Your task to perform on an android device: What's on my calendar tomorrow? Image 0: 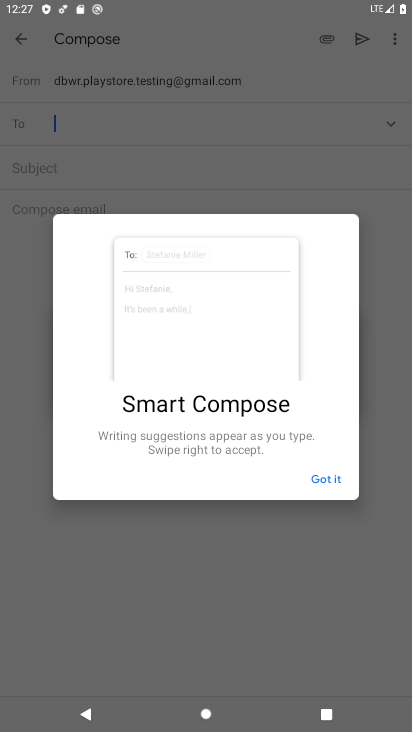
Step 0: press home button
Your task to perform on an android device: What's on my calendar tomorrow? Image 1: 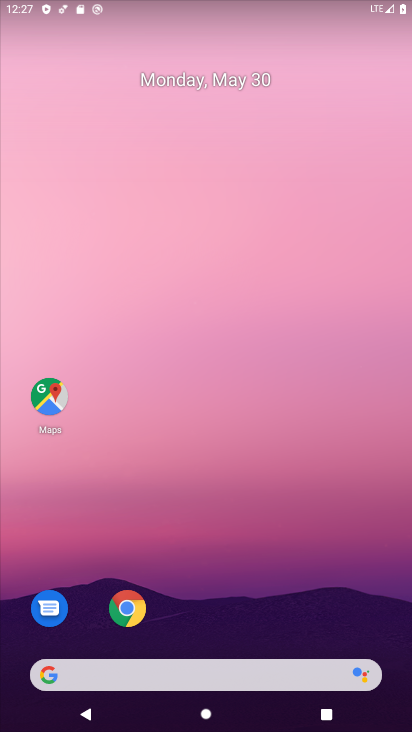
Step 1: drag from (234, 624) to (264, 13)
Your task to perform on an android device: What's on my calendar tomorrow? Image 2: 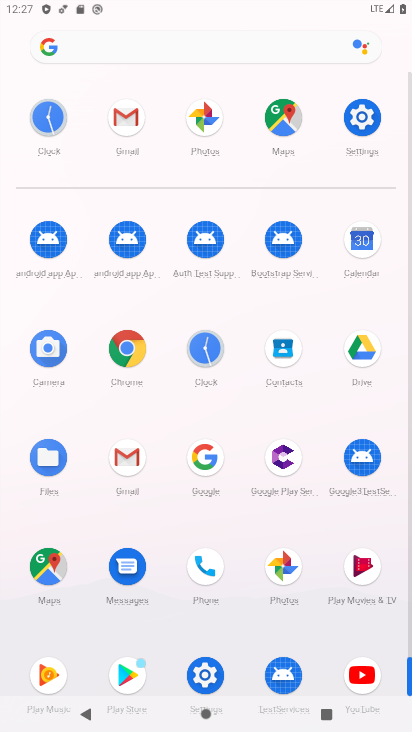
Step 2: click (376, 264)
Your task to perform on an android device: What's on my calendar tomorrow? Image 3: 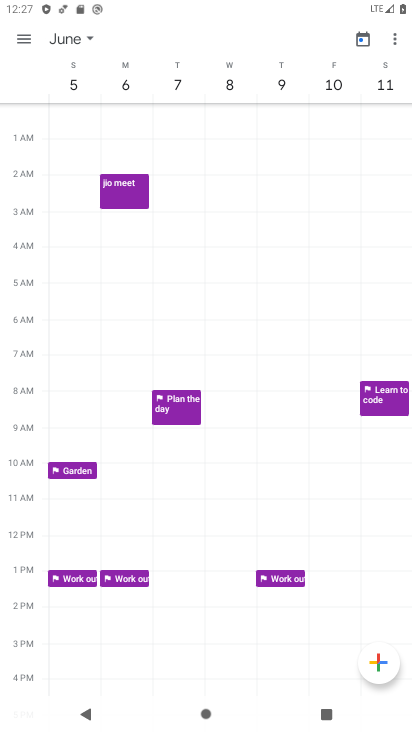
Step 3: drag from (210, 61) to (403, 125)
Your task to perform on an android device: What's on my calendar tomorrow? Image 4: 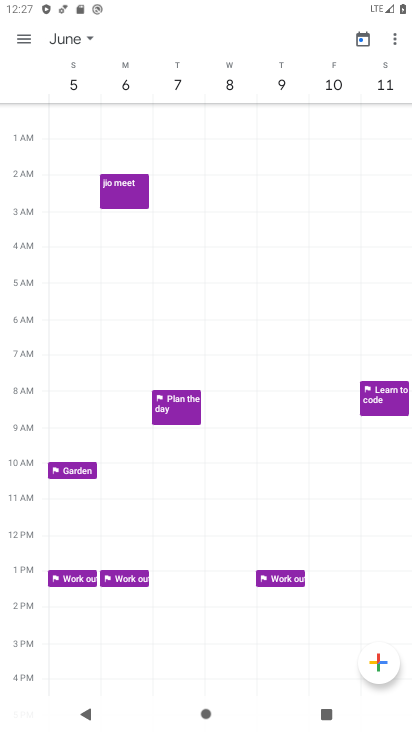
Step 4: drag from (81, 92) to (406, 167)
Your task to perform on an android device: What's on my calendar tomorrow? Image 5: 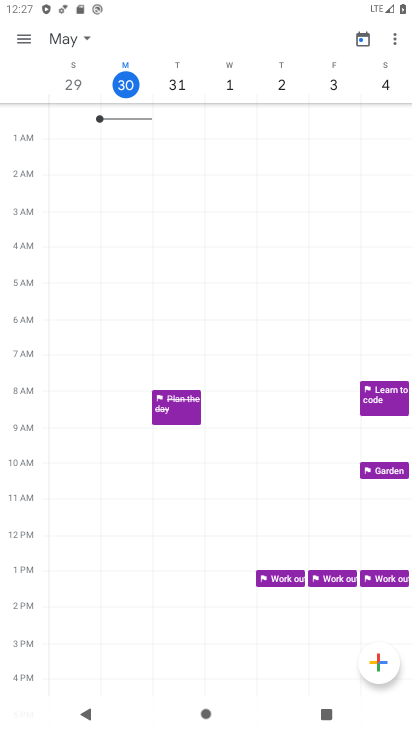
Step 5: click (22, 34)
Your task to perform on an android device: What's on my calendar tomorrow? Image 6: 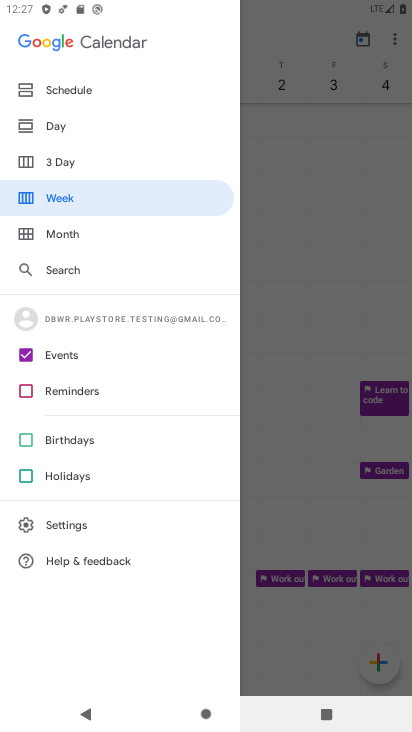
Step 6: click (102, 168)
Your task to perform on an android device: What's on my calendar tomorrow? Image 7: 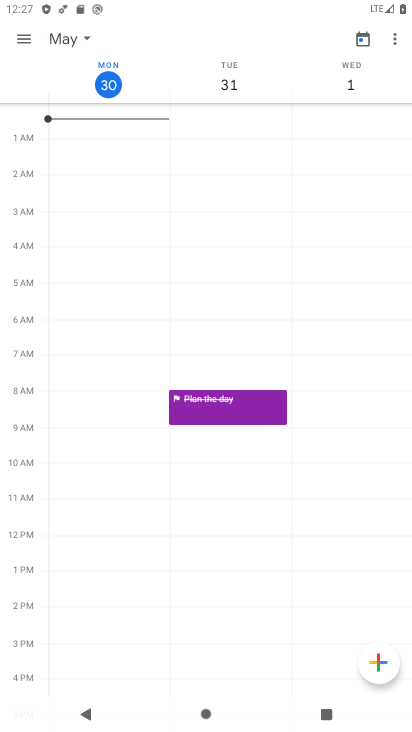
Step 7: task complete